Your task to perform on an android device: turn off priority inbox in the gmail app Image 0: 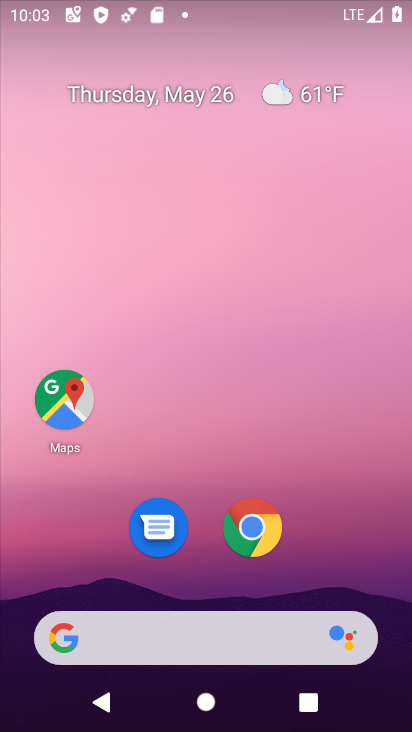
Step 0: drag from (186, 557) to (270, 36)
Your task to perform on an android device: turn off priority inbox in the gmail app Image 1: 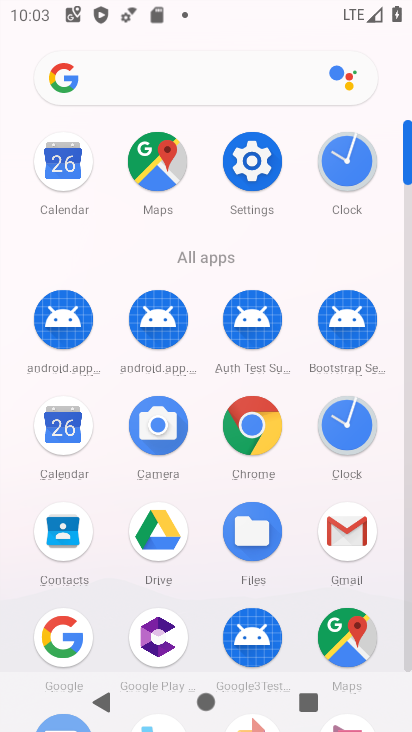
Step 1: click (356, 522)
Your task to perform on an android device: turn off priority inbox in the gmail app Image 2: 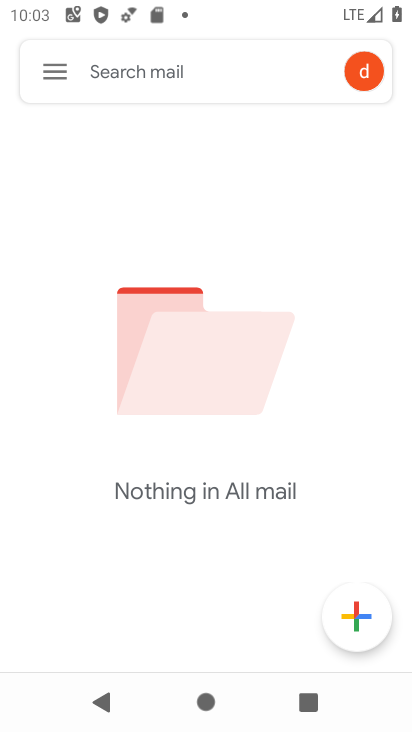
Step 2: click (48, 74)
Your task to perform on an android device: turn off priority inbox in the gmail app Image 3: 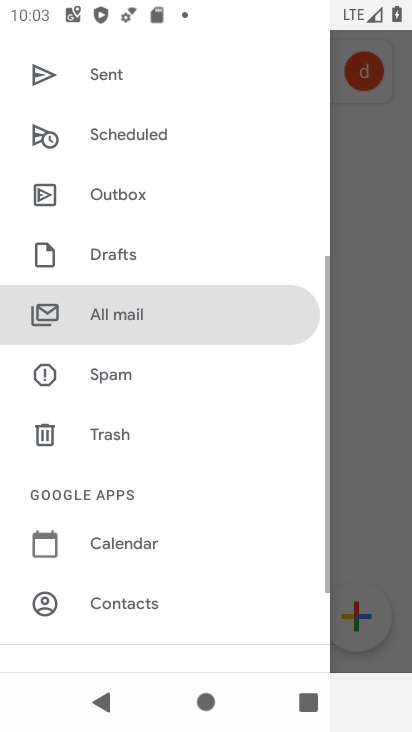
Step 3: drag from (128, 575) to (195, 93)
Your task to perform on an android device: turn off priority inbox in the gmail app Image 4: 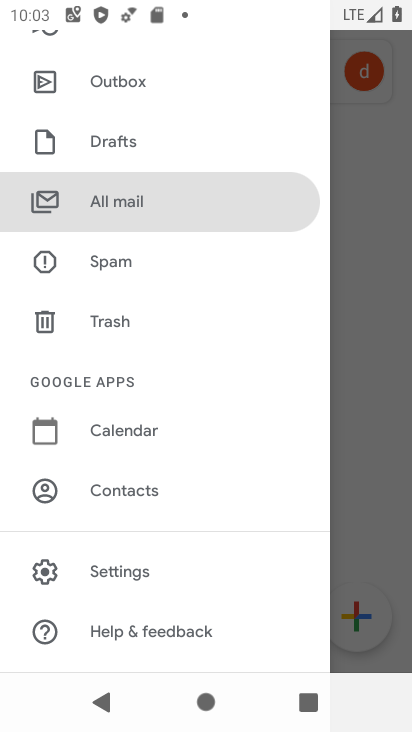
Step 4: click (139, 562)
Your task to perform on an android device: turn off priority inbox in the gmail app Image 5: 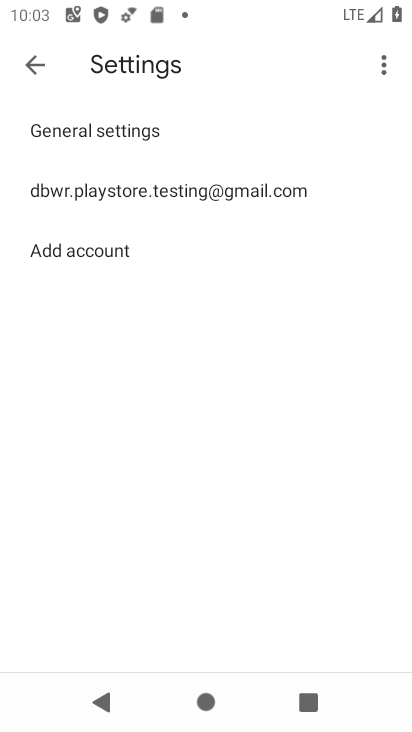
Step 5: click (161, 200)
Your task to perform on an android device: turn off priority inbox in the gmail app Image 6: 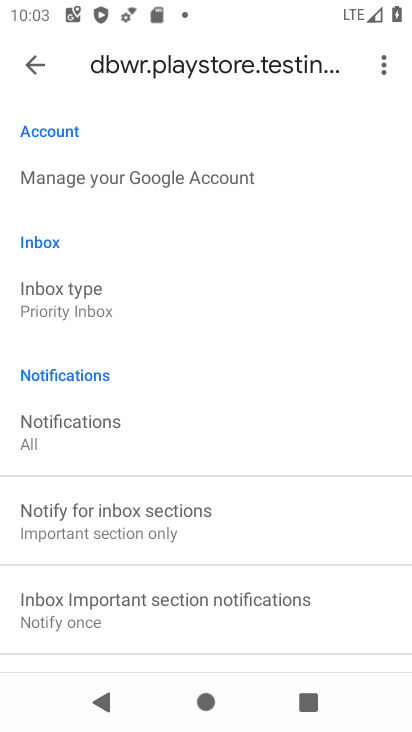
Step 6: click (75, 309)
Your task to perform on an android device: turn off priority inbox in the gmail app Image 7: 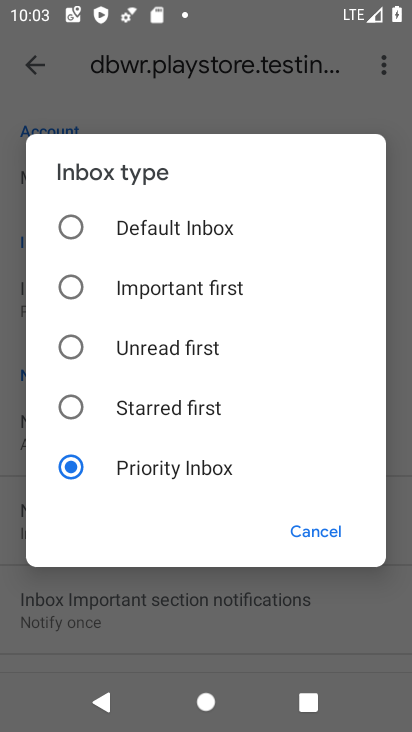
Step 7: click (65, 211)
Your task to perform on an android device: turn off priority inbox in the gmail app Image 8: 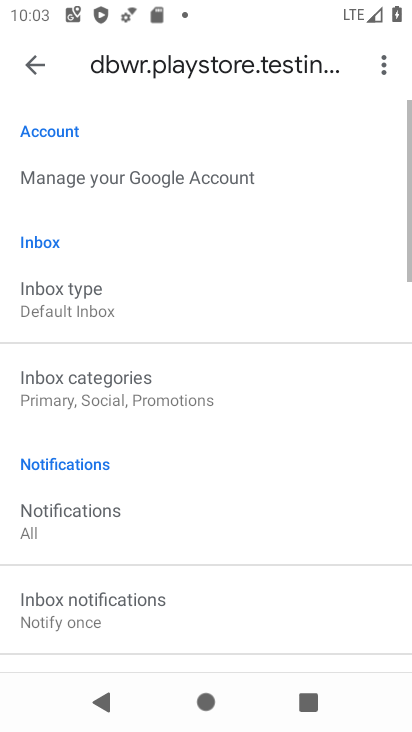
Step 8: task complete